Your task to perform on an android device: add a contact Image 0: 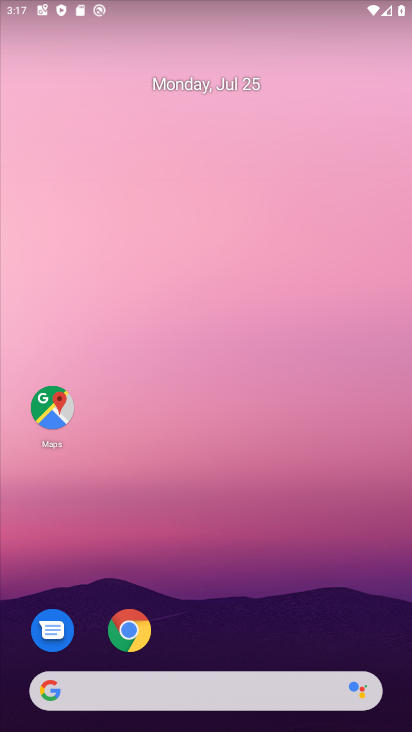
Step 0: drag from (234, 688) to (186, 136)
Your task to perform on an android device: add a contact Image 1: 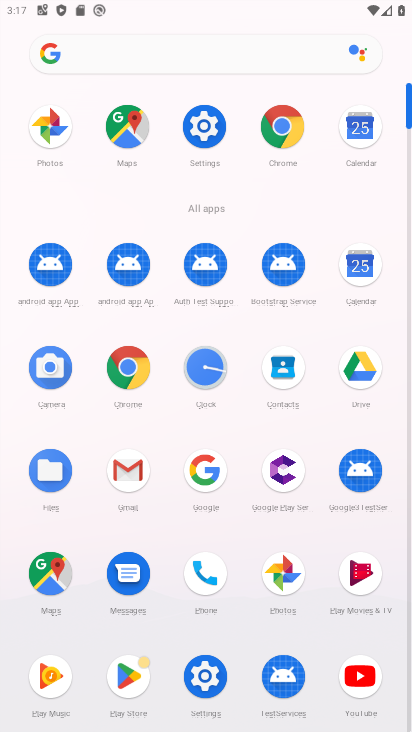
Step 1: click (281, 360)
Your task to perform on an android device: add a contact Image 2: 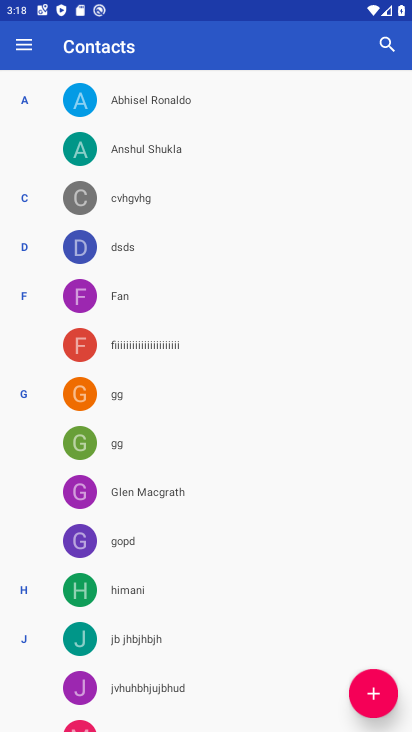
Step 2: click (372, 681)
Your task to perform on an android device: add a contact Image 3: 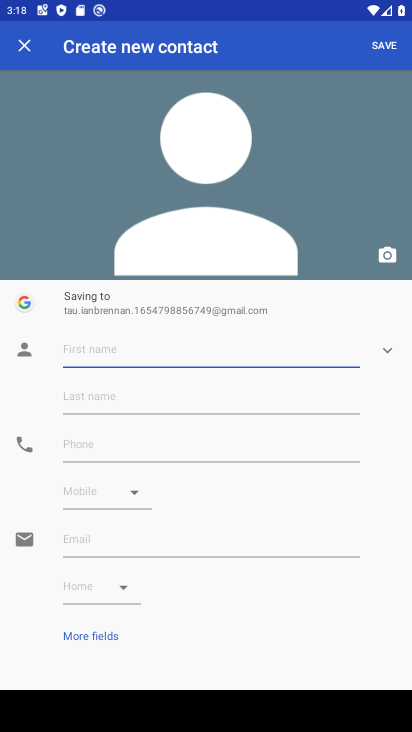
Step 3: type ""
Your task to perform on an android device: add a contact Image 4: 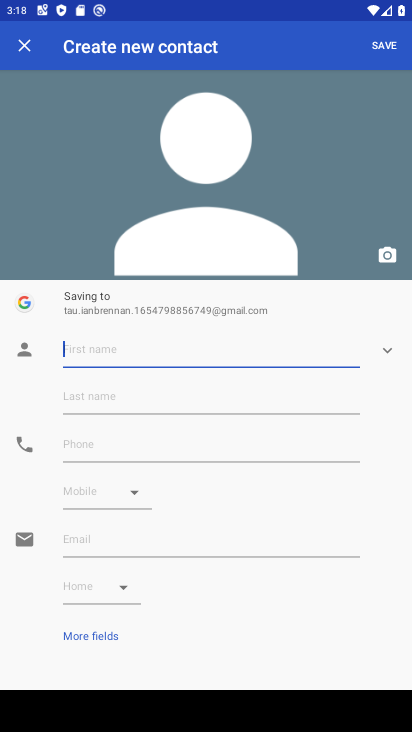
Step 4: type "sjhfsdj"
Your task to perform on an android device: add a contact Image 5: 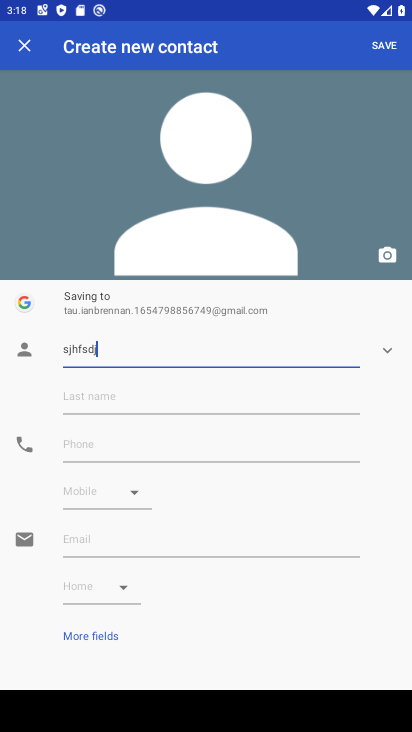
Step 5: click (124, 441)
Your task to perform on an android device: add a contact Image 6: 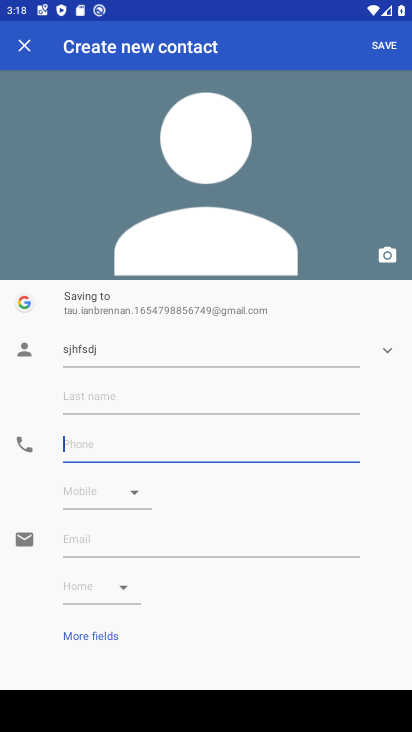
Step 6: type "7656578"
Your task to perform on an android device: add a contact Image 7: 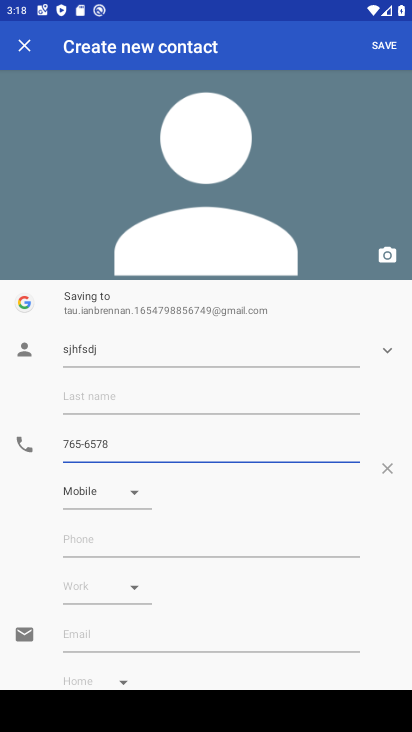
Step 7: click (375, 39)
Your task to perform on an android device: add a contact Image 8: 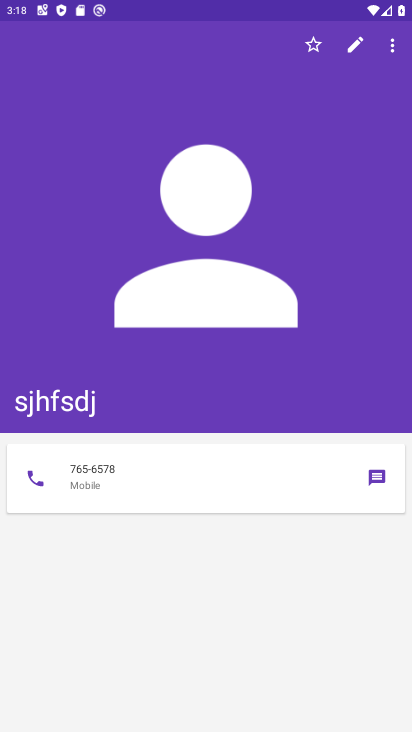
Step 8: task complete